Your task to perform on an android device: How do I get to the nearest Home Depot? Image 0: 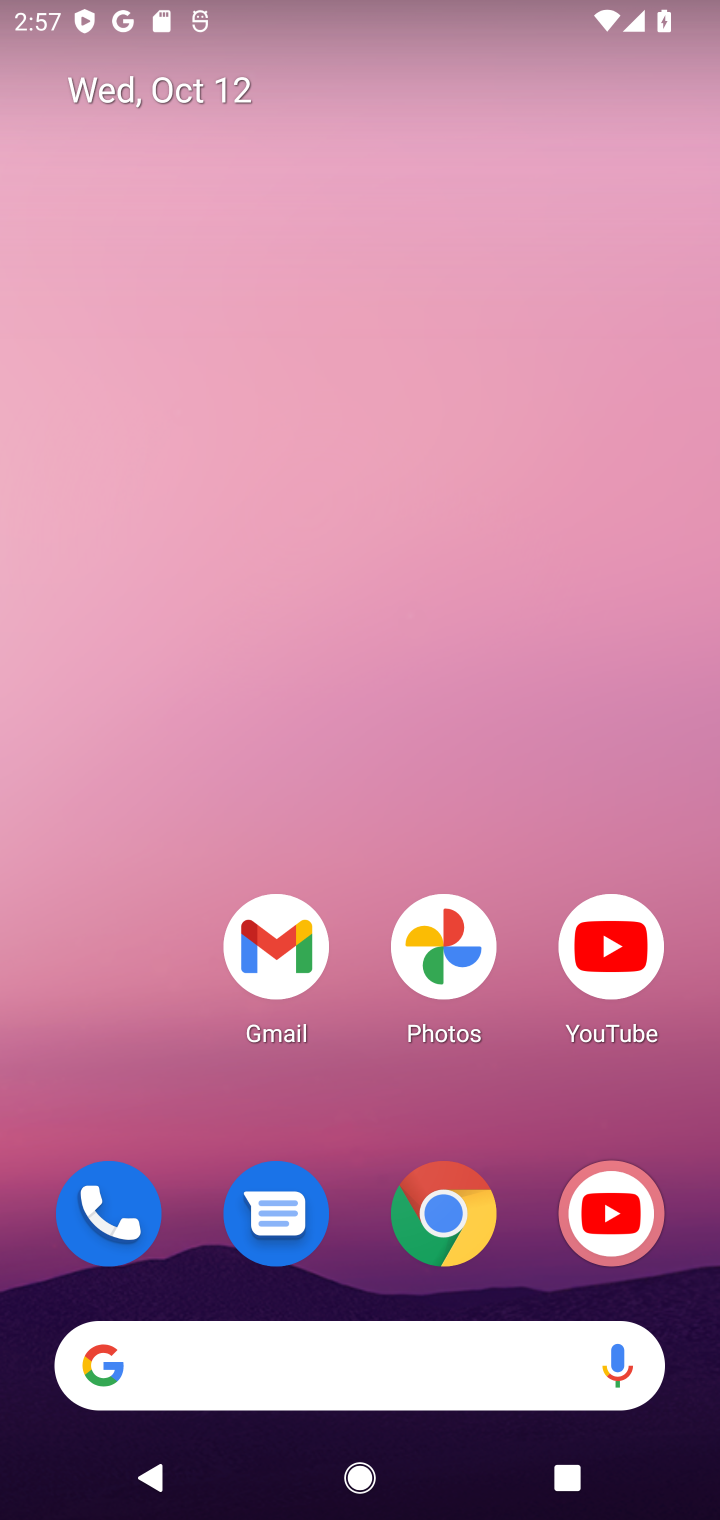
Step 0: click (391, 1364)
Your task to perform on an android device: How do I get to the nearest Home Depot? Image 1: 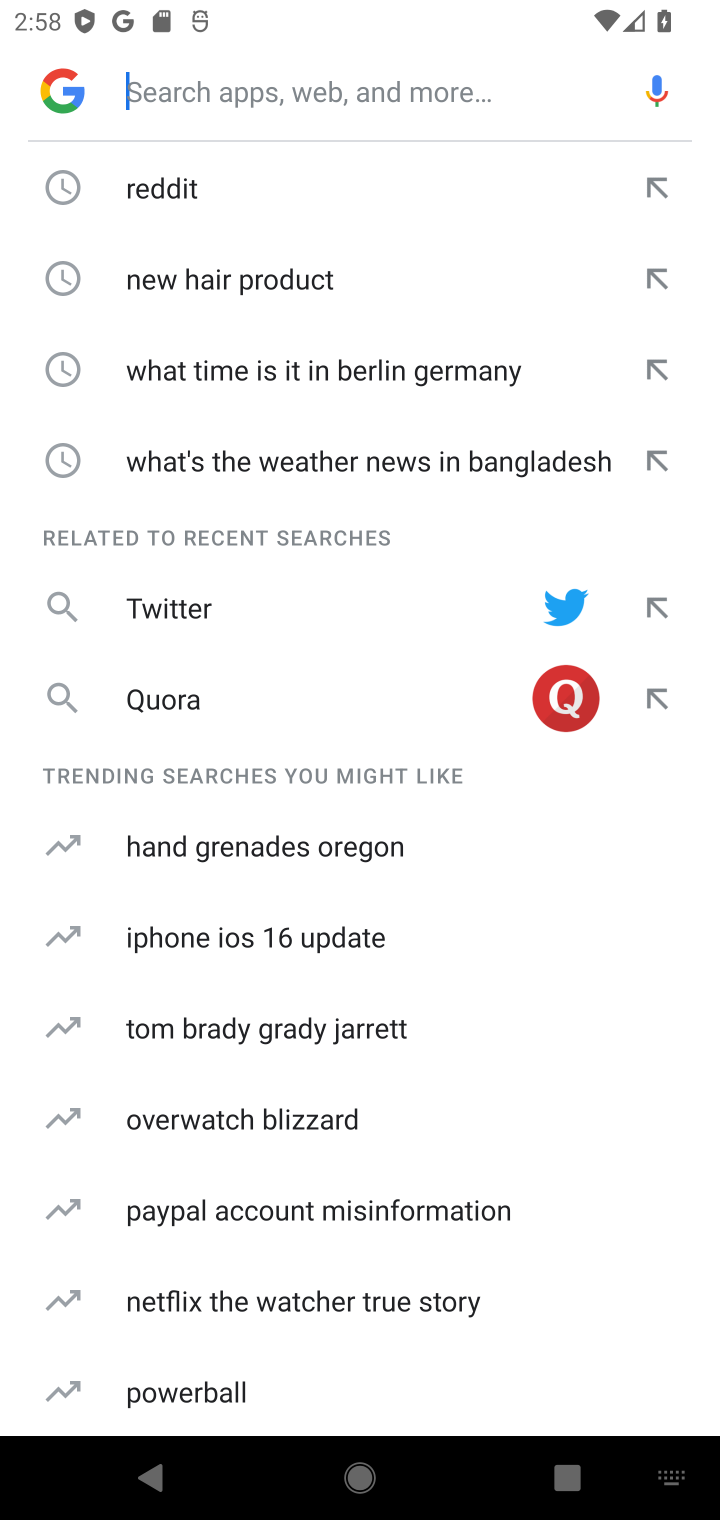
Step 1: click (212, 86)
Your task to perform on an android device: How do I get to the nearest Home Depot? Image 2: 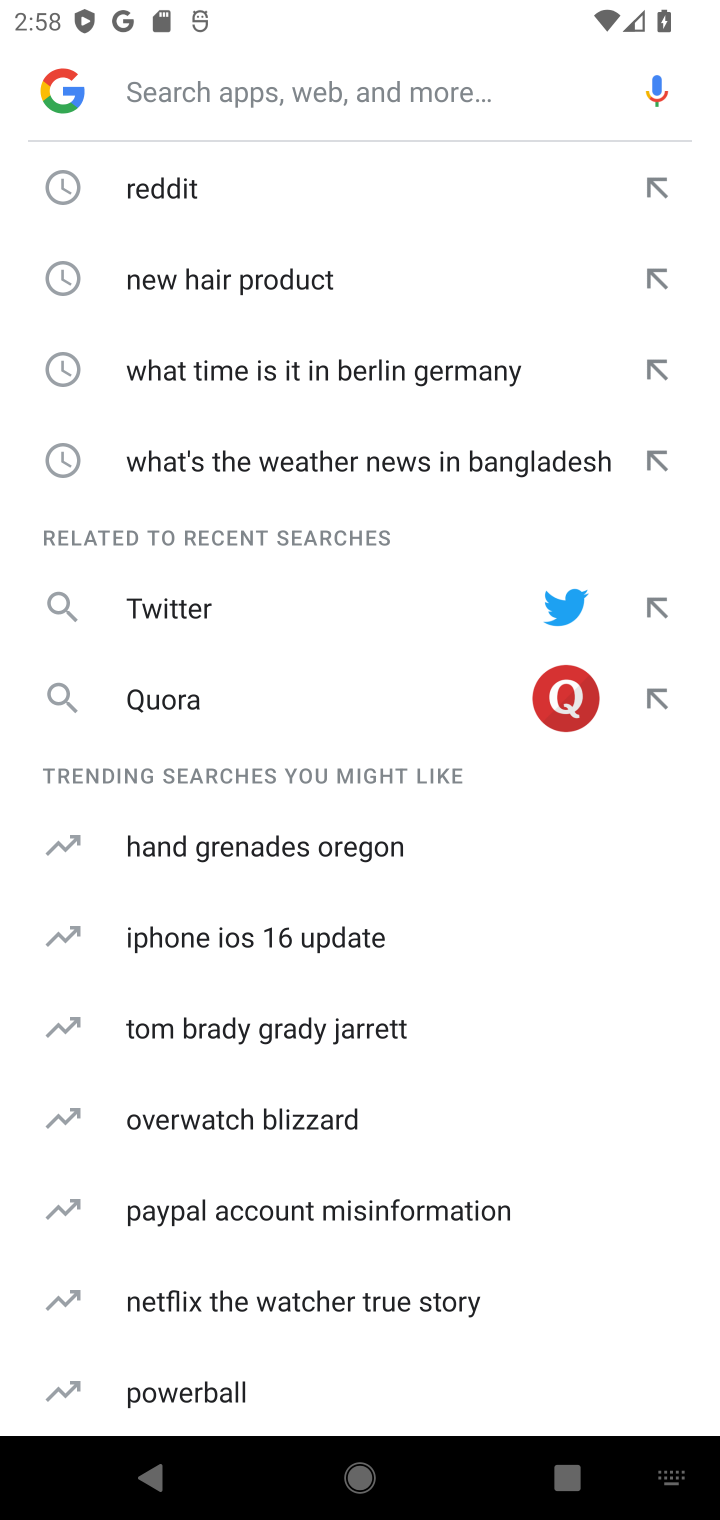
Step 2: type "How do I get to the nearest Home Depot?"
Your task to perform on an android device: How do I get to the nearest Home Depot? Image 3: 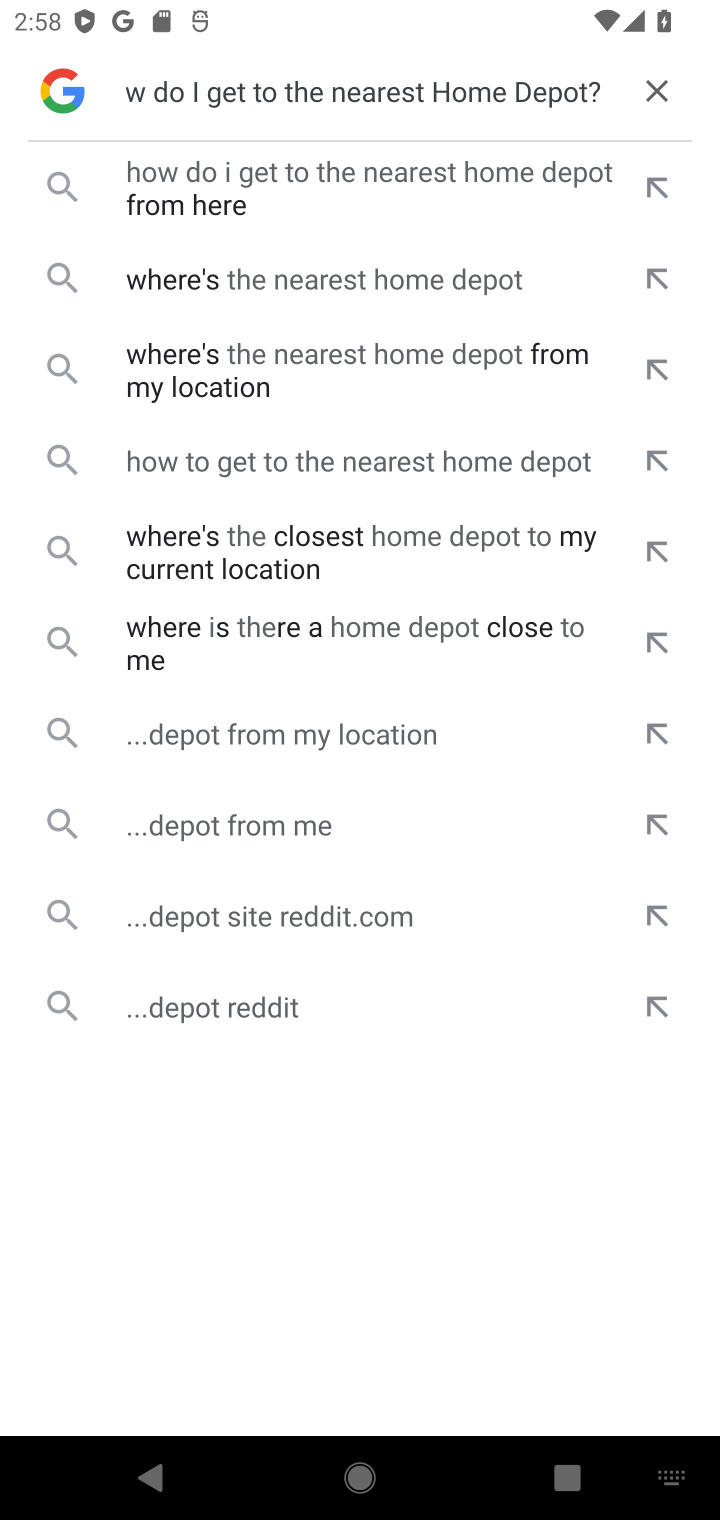
Step 3: click (365, 203)
Your task to perform on an android device: How do I get to the nearest Home Depot? Image 4: 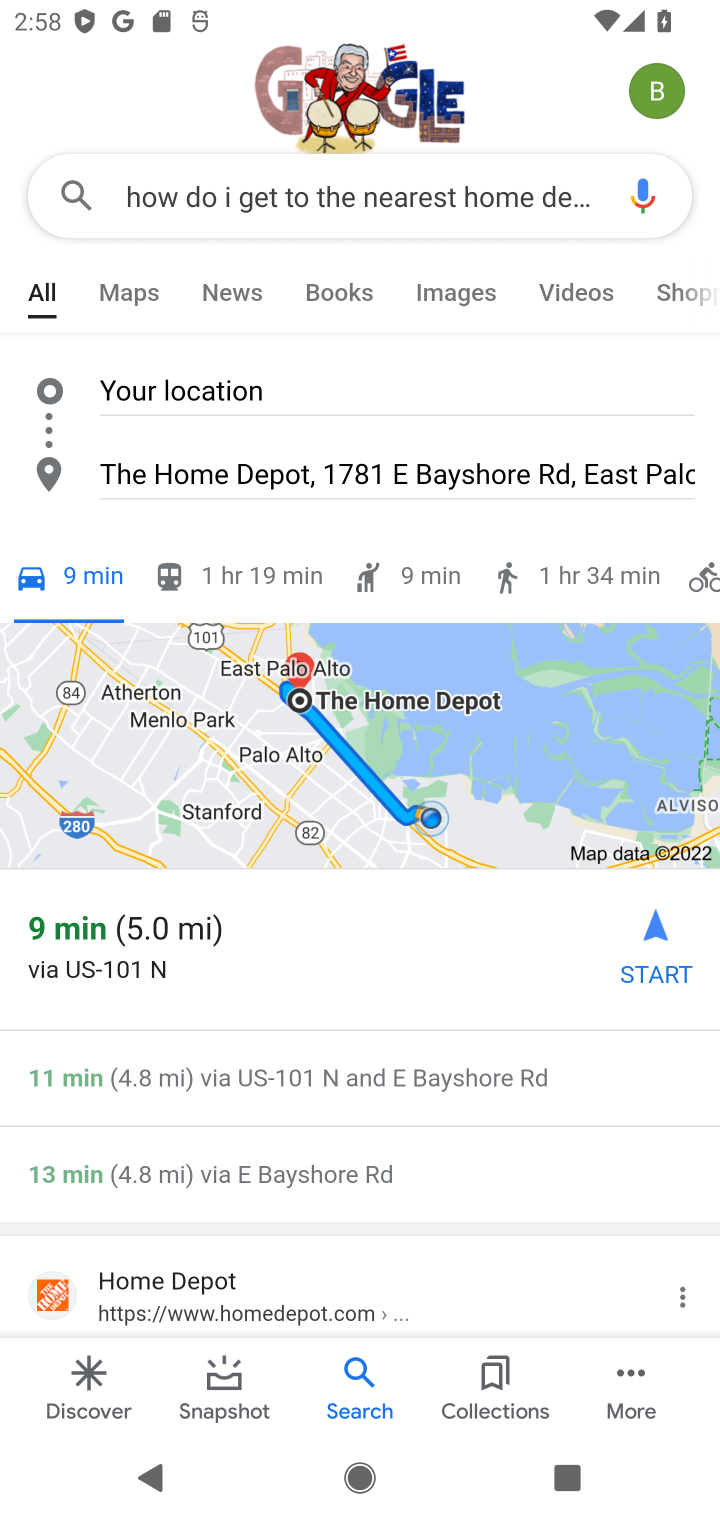
Step 4: task complete